Your task to perform on an android device: toggle notifications settings in the gmail app Image 0: 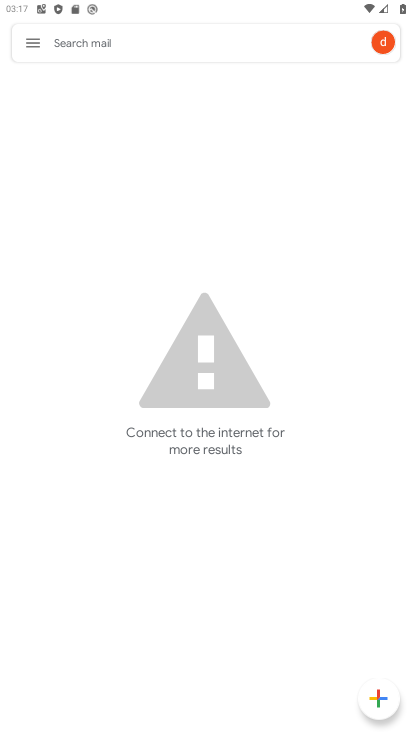
Step 0: press home button
Your task to perform on an android device: toggle notifications settings in the gmail app Image 1: 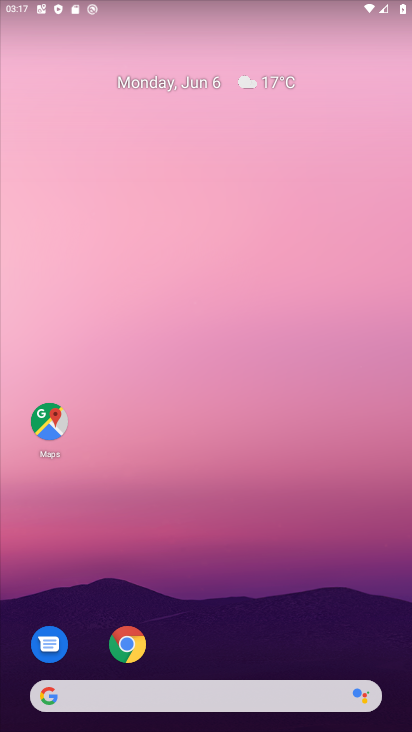
Step 1: drag from (399, 394) to (379, 76)
Your task to perform on an android device: toggle notifications settings in the gmail app Image 2: 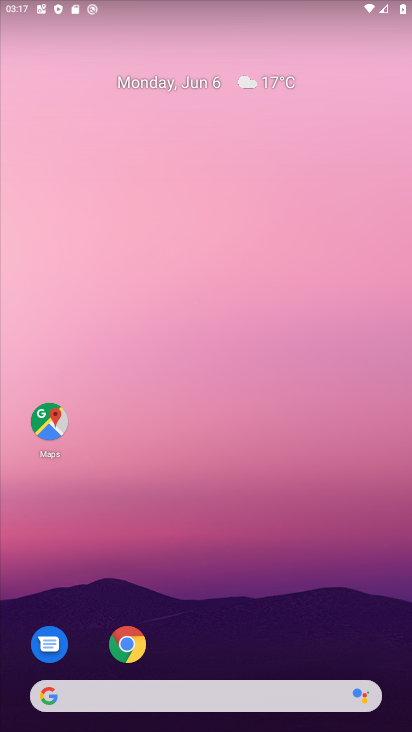
Step 2: drag from (393, 679) to (381, 0)
Your task to perform on an android device: toggle notifications settings in the gmail app Image 3: 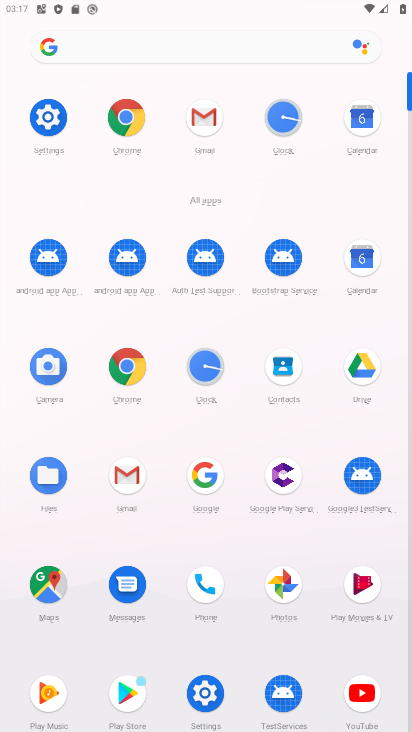
Step 3: click (207, 122)
Your task to perform on an android device: toggle notifications settings in the gmail app Image 4: 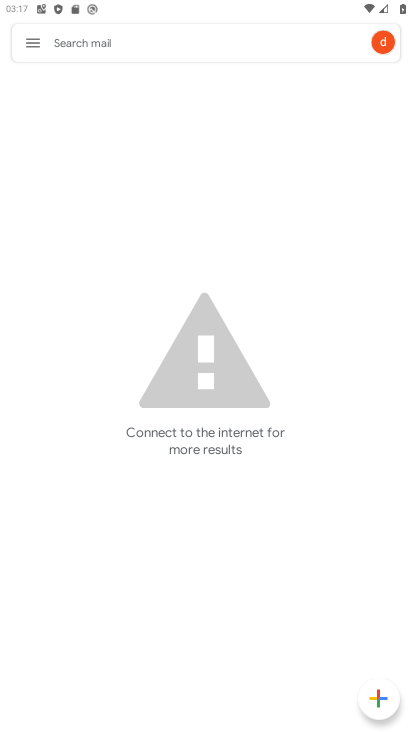
Step 4: press back button
Your task to perform on an android device: toggle notifications settings in the gmail app Image 5: 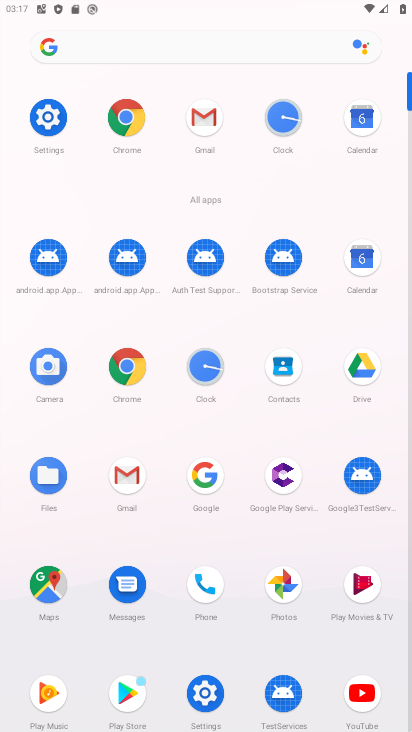
Step 5: click (196, 692)
Your task to perform on an android device: toggle notifications settings in the gmail app Image 6: 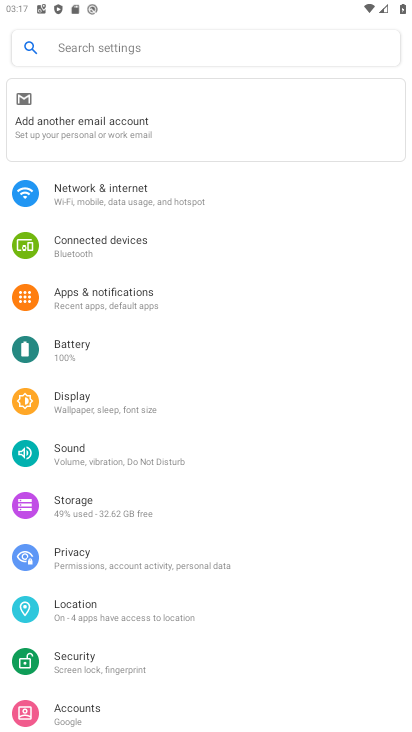
Step 6: click (106, 287)
Your task to perform on an android device: toggle notifications settings in the gmail app Image 7: 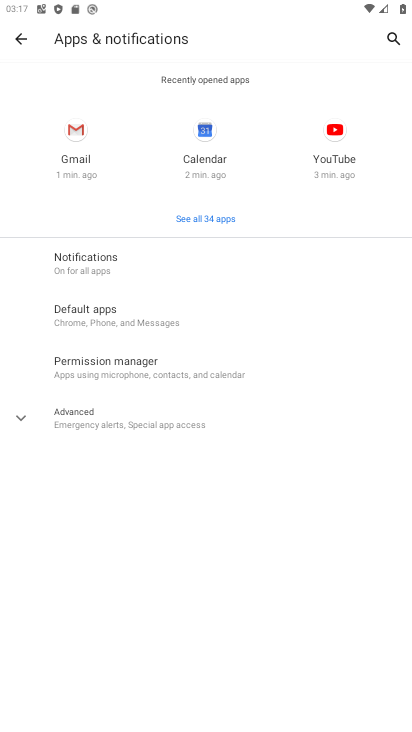
Step 7: click (89, 262)
Your task to perform on an android device: toggle notifications settings in the gmail app Image 8: 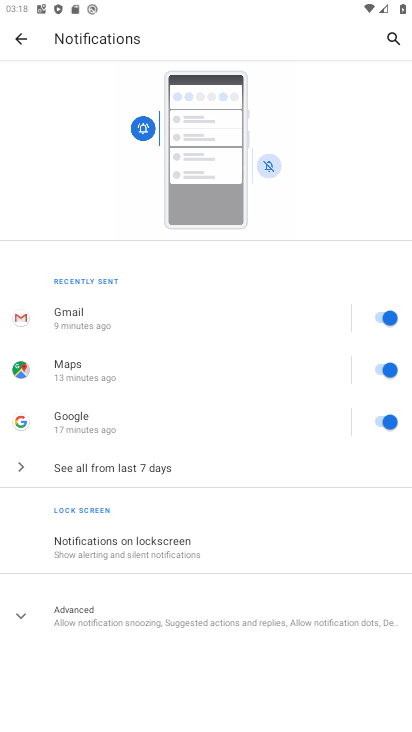
Step 8: click (375, 314)
Your task to perform on an android device: toggle notifications settings in the gmail app Image 9: 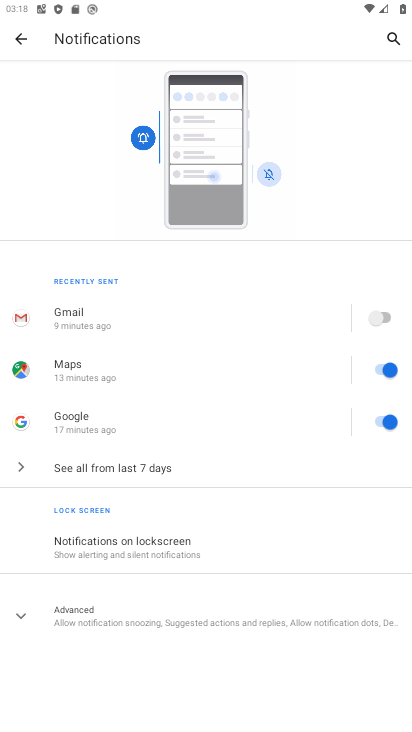
Step 9: click (377, 360)
Your task to perform on an android device: toggle notifications settings in the gmail app Image 10: 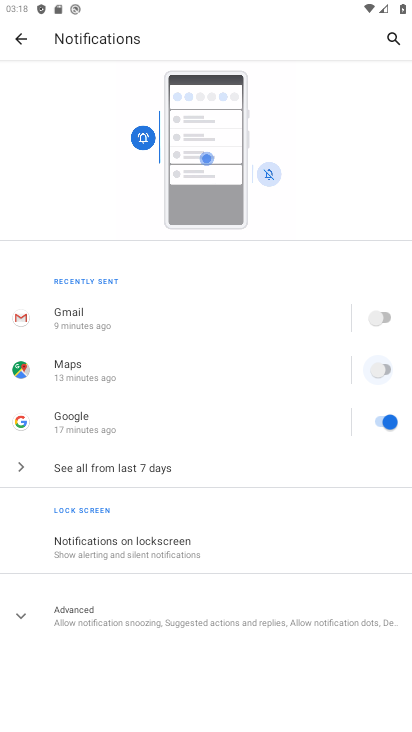
Step 10: click (381, 415)
Your task to perform on an android device: toggle notifications settings in the gmail app Image 11: 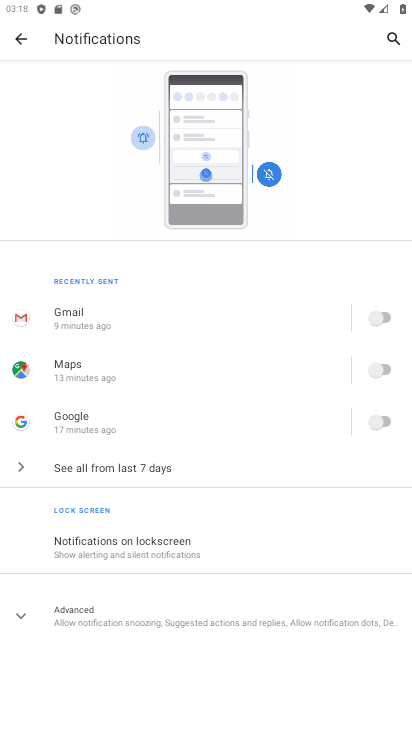
Step 11: task complete